Your task to perform on an android device: change keyboard looks Image 0: 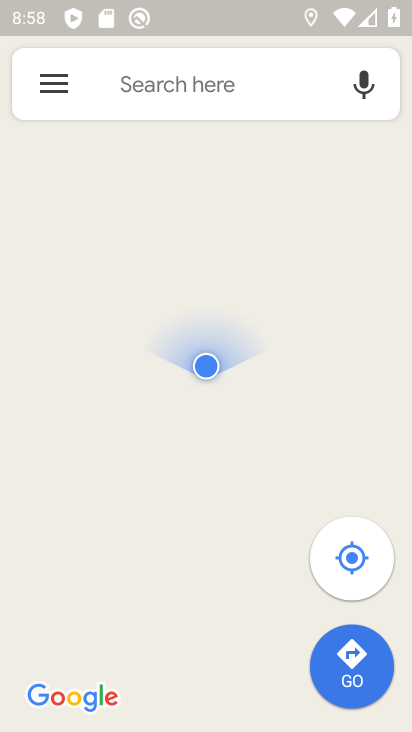
Step 0: press home button
Your task to perform on an android device: change keyboard looks Image 1: 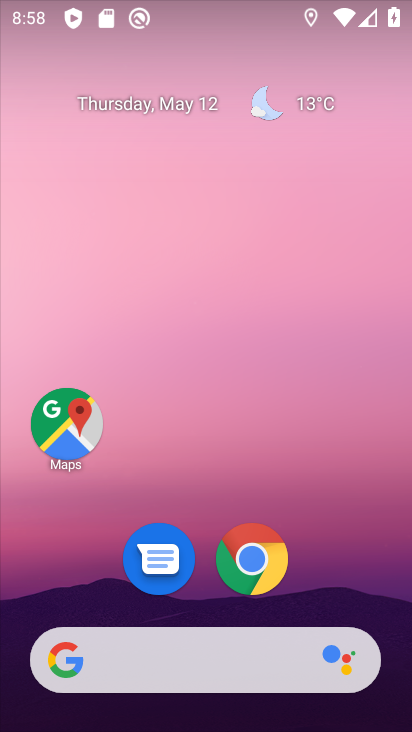
Step 1: drag from (149, 587) to (277, 110)
Your task to perform on an android device: change keyboard looks Image 2: 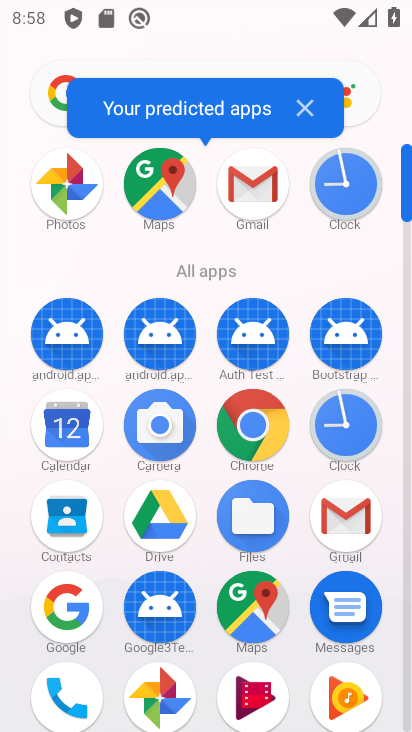
Step 2: drag from (158, 594) to (266, 269)
Your task to perform on an android device: change keyboard looks Image 3: 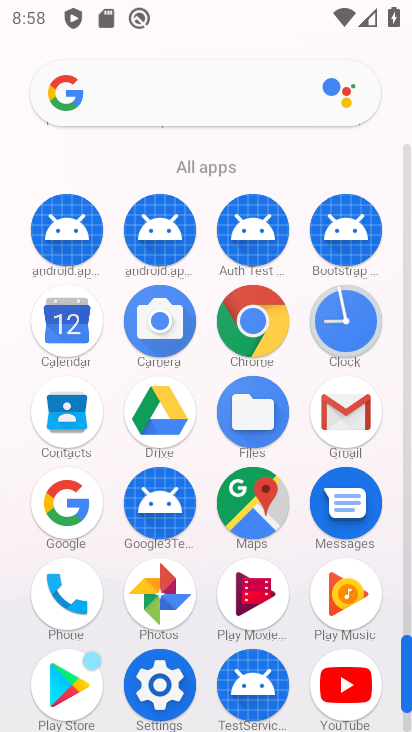
Step 3: click (173, 672)
Your task to perform on an android device: change keyboard looks Image 4: 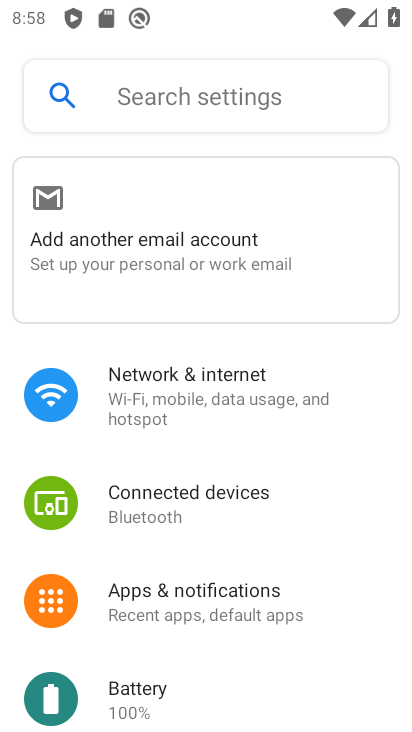
Step 4: drag from (178, 640) to (301, 132)
Your task to perform on an android device: change keyboard looks Image 5: 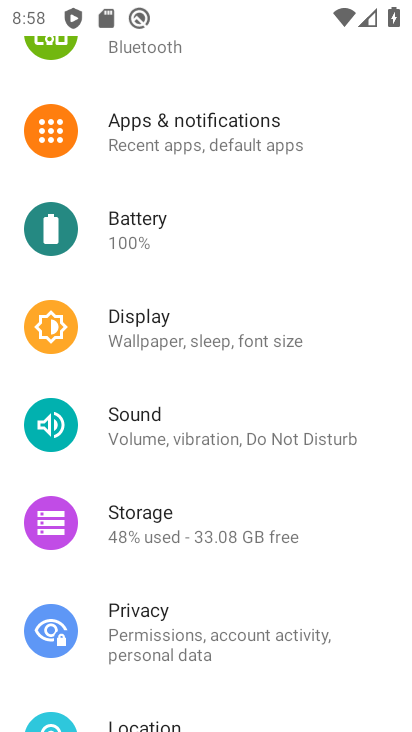
Step 5: drag from (186, 588) to (312, 186)
Your task to perform on an android device: change keyboard looks Image 6: 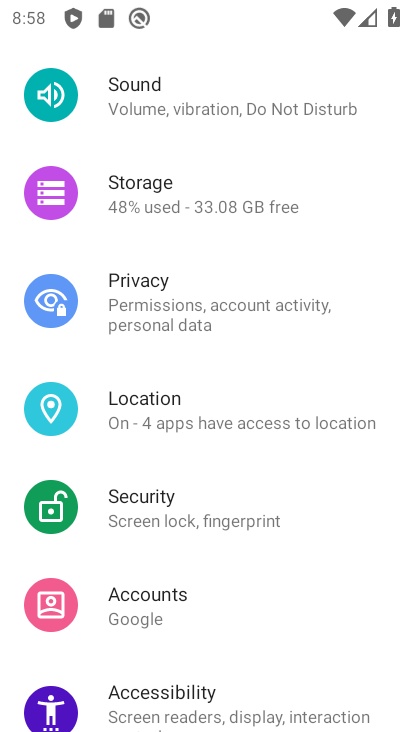
Step 6: drag from (227, 656) to (337, 264)
Your task to perform on an android device: change keyboard looks Image 7: 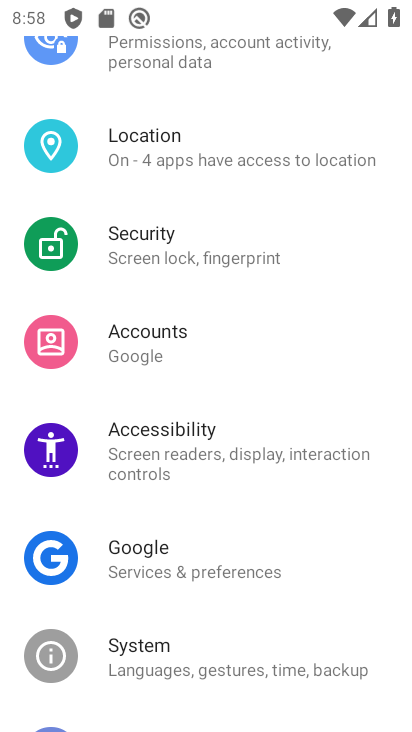
Step 7: click (194, 666)
Your task to perform on an android device: change keyboard looks Image 8: 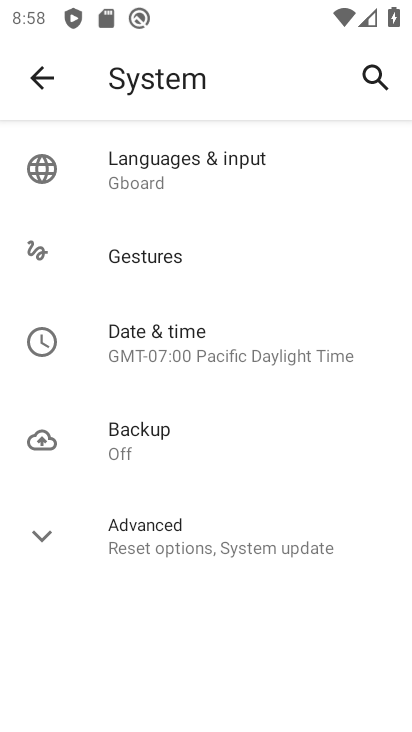
Step 8: click (270, 174)
Your task to perform on an android device: change keyboard looks Image 9: 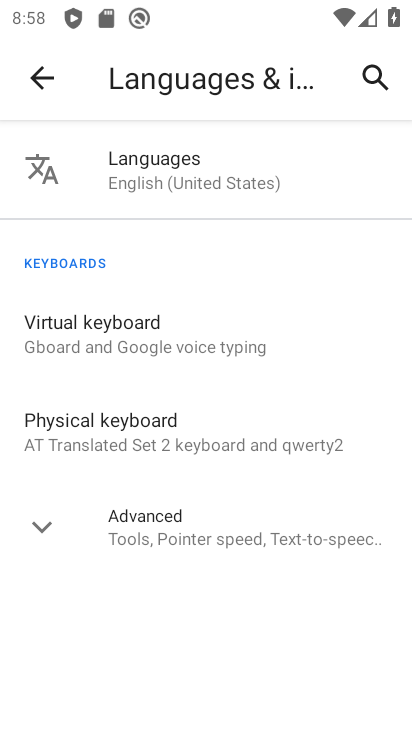
Step 9: click (188, 356)
Your task to perform on an android device: change keyboard looks Image 10: 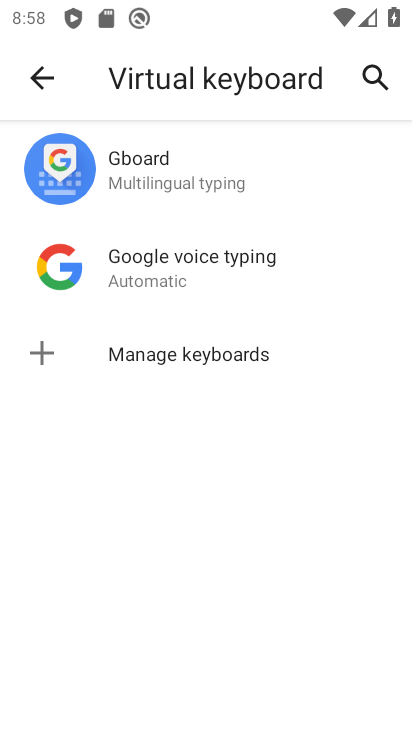
Step 10: click (216, 195)
Your task to perform on an android device: change keyboard looks Image 11: 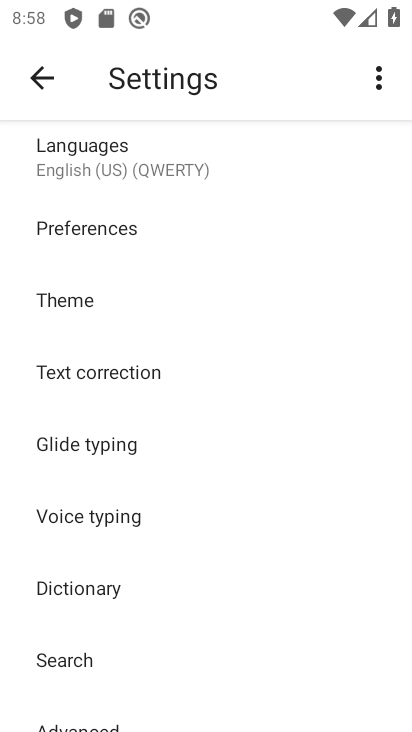
Step 11: drag from (138, 665) to (260, 305)
Your task to perform on an android device: change keyboard looks Image 12: 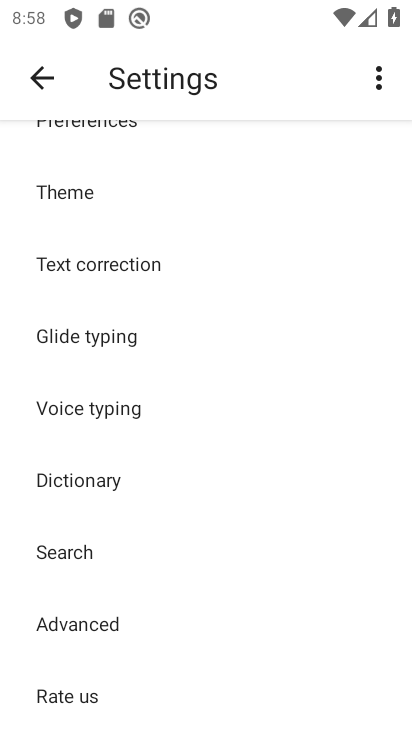
Step 12: drag from (199, 274) to (187, 464)
Your task to perform on an android device: change keyboard looks Image 13: 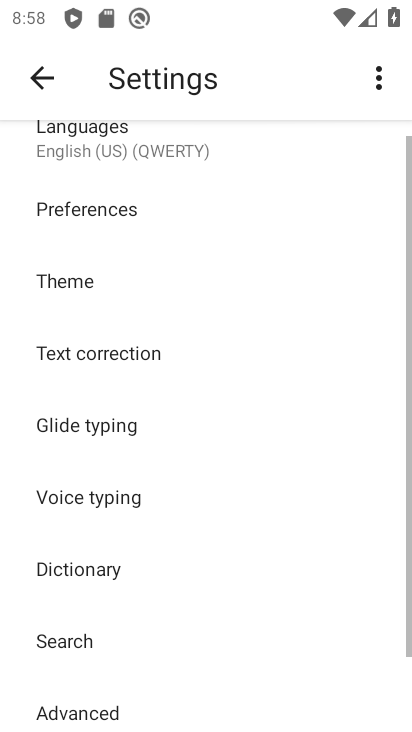
Step 13: click (125, 303)
Your task to perform on an android device: change keyboard looks Image 14: 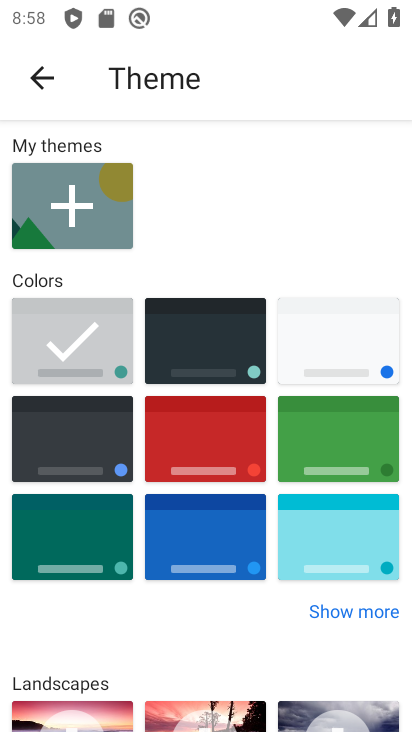
Step 14: click (199, 472)
Your task to perform on an android device: change keyboard looks Image 15: 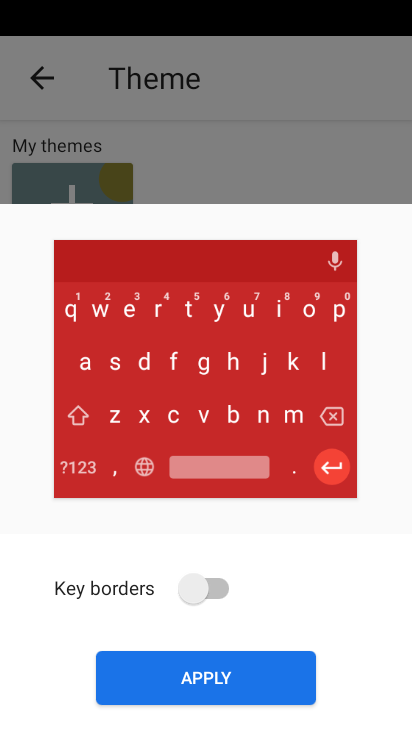
Step 15: click (227, 595)
Your task to perform on an android device: change keyboard looks Image 16: 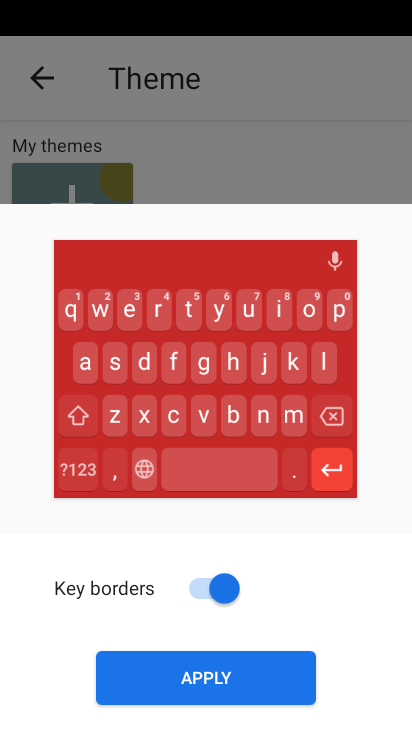
Step 16: click (224, 647)
Your task to perform on an android device: change keyboard looks Image 17: 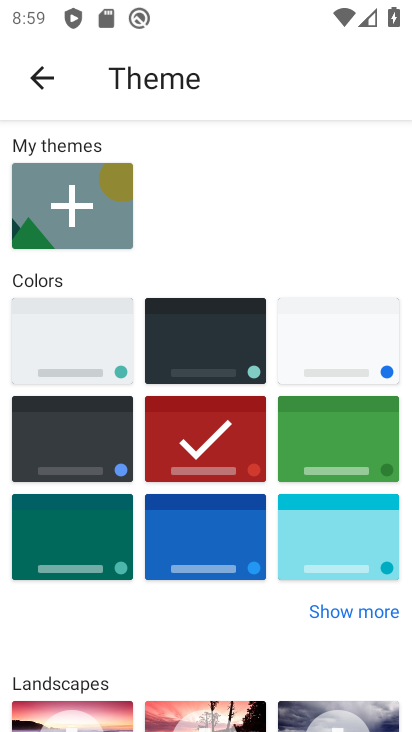
Step 17: drag from (106, 705) to (303, 92)
Your task to perform on an android device: change keyboard looks Image 18: 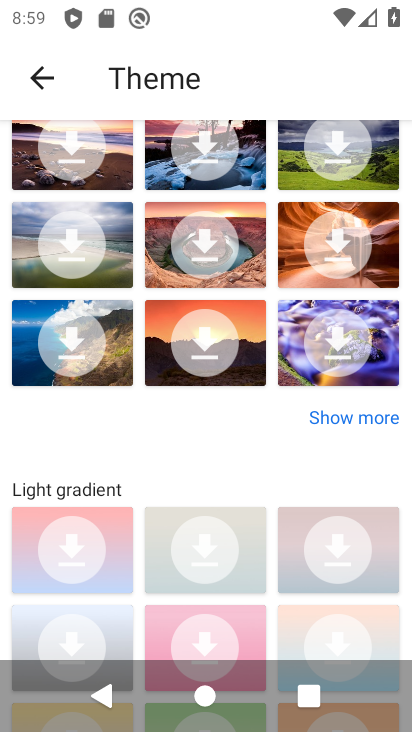
Step 18: click (78, 548)
Your task to perform on an android device: change keyboard looks Image 19: 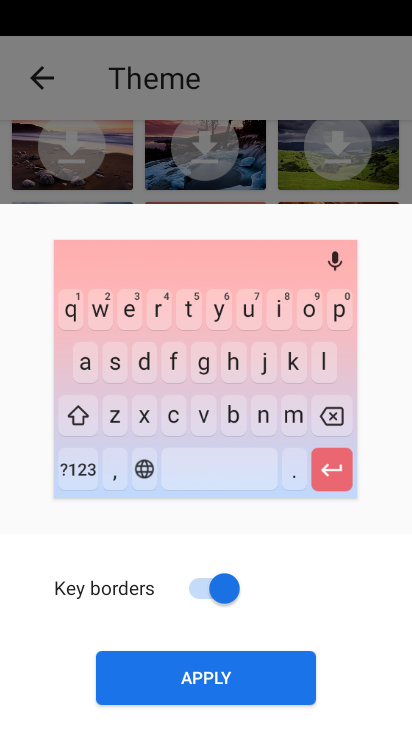
Step 19: click (222, 664)
Your task to perform on an android device: change keyboard looks Image 20: 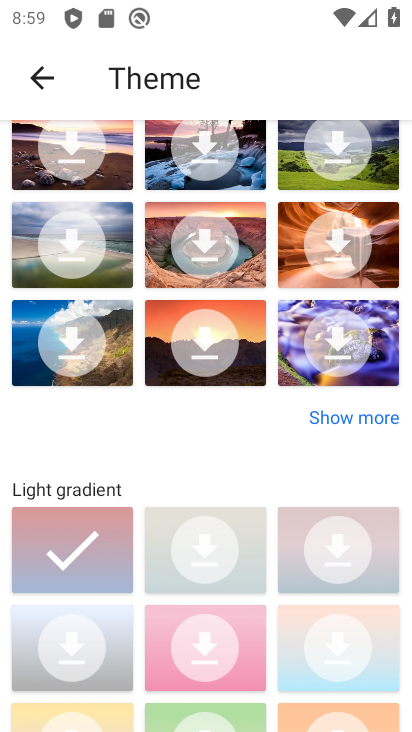
Step 20: click (48, 83)
Your task to perform on an android device: change keyboard looks Image 21: 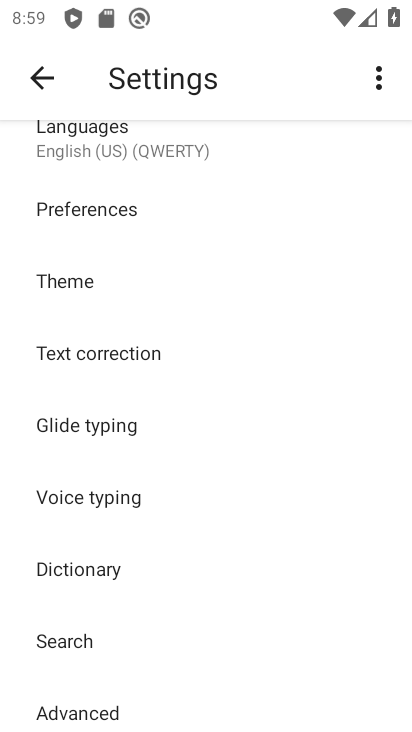
Step 21: click (136, 351)
Your task to perform on an android device: change keyboard looks Image 22: 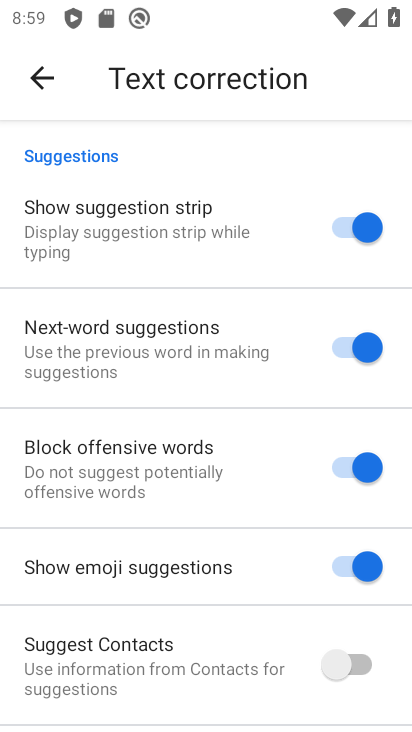
Step 22: click (374, 668)
Your task to perform on an android device: change keyboard looks Image 23: 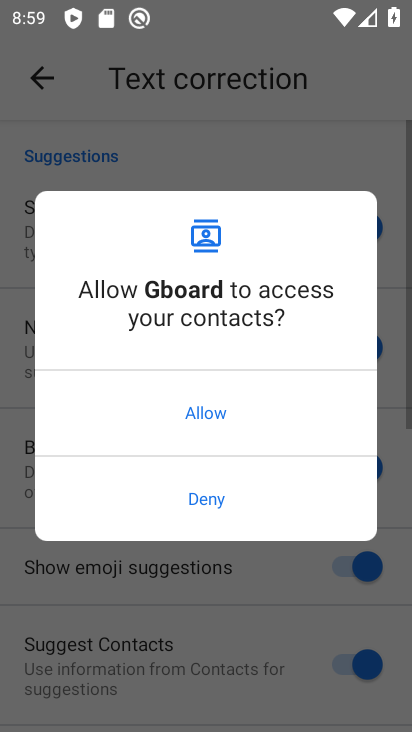
Step 23: click (347, 560)
Your task to perform on an android device: change keyboard looks Image 24: 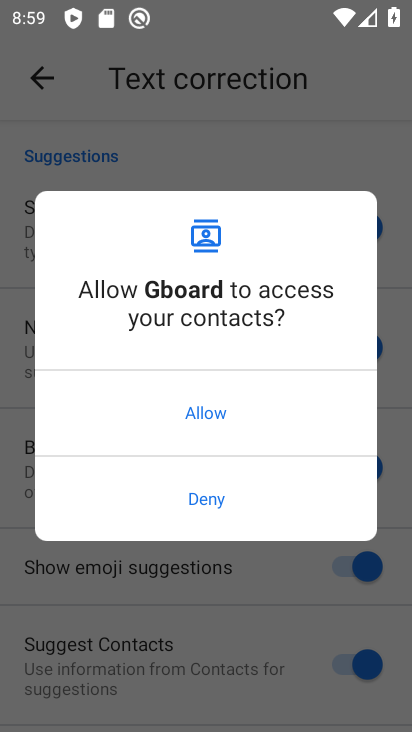
Step 24: click (250, 404)
Your task to perform on an android device: change keyboard looks Image 25: 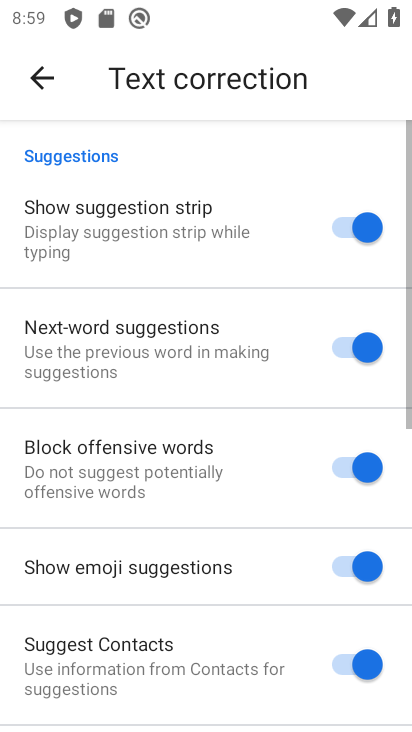
Step 25: click (349, 232)
Your task to perform on an android device: change keyboard looks Image 26: 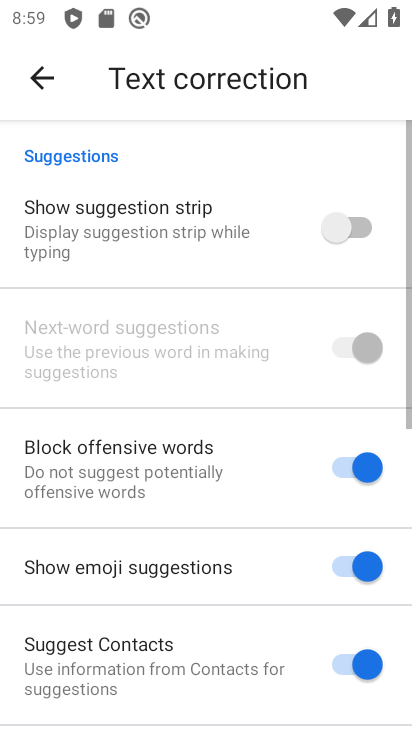
Step 26: click (337, 354)
Your task to perform on an android device: change keyboard looks Image 27: 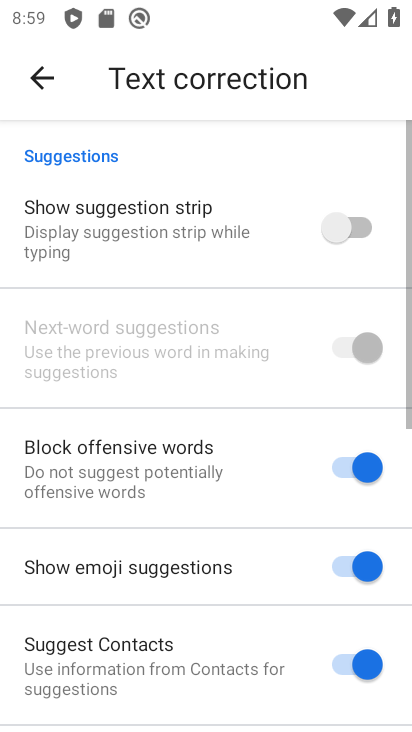
Step 27: click (343, 481)
Your task to perform on an android device: change keyboard looks Image 28: 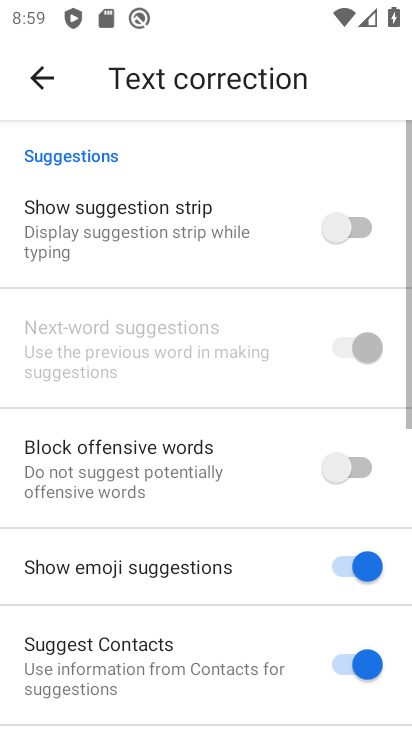
Step 28: click (344, 560)
Your task to perform on an android device: change keyboard looks Image 29: 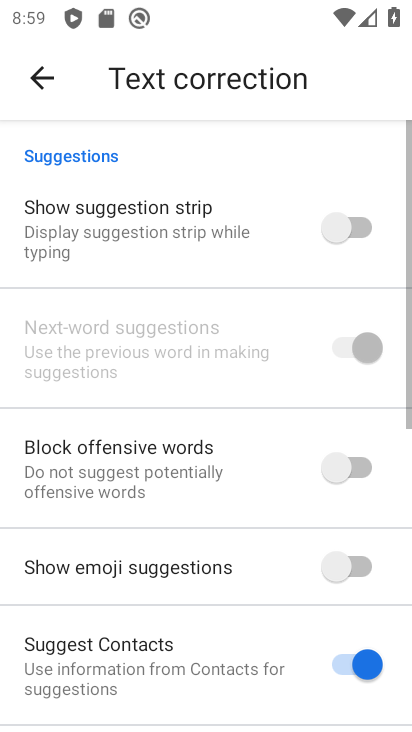
Step 29: drag from (209, 636) to (391, 186)
Your task to perform on an android device: change keyboard looks Image 30: 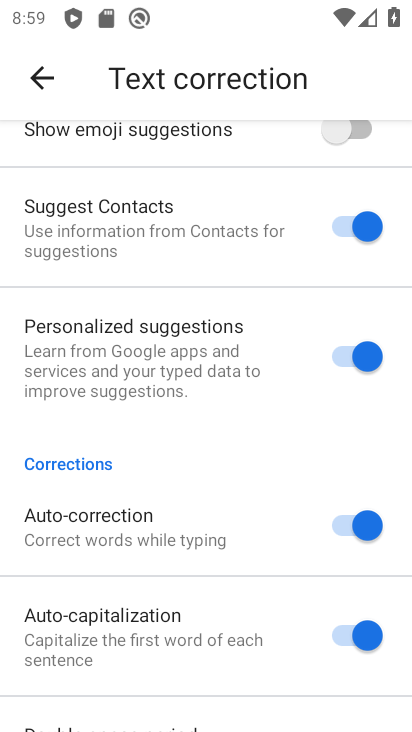
Step 30: click (364, 357)
Your task to perform on an android device: change keyboard looks Image 31: 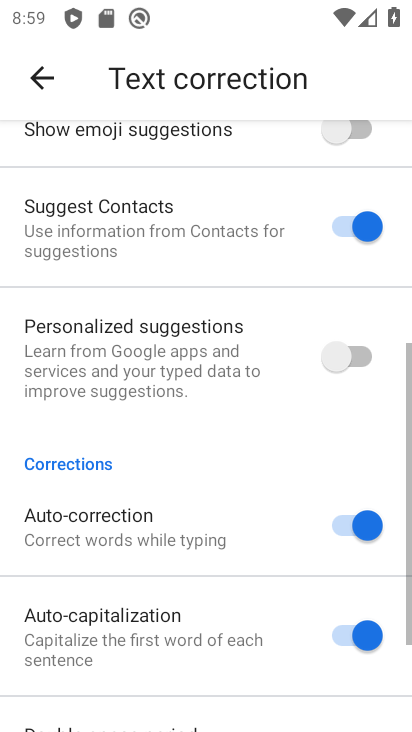
Step 31: click (338, 651)
Your task to perform on an android device: change keyboard looks Image 32: 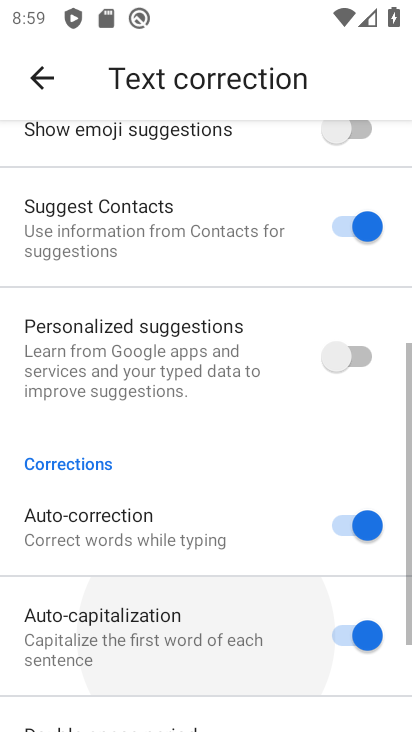
Step 32: click (339, 549)
Your task to perform on an android device: change keyboard looks Image 33: 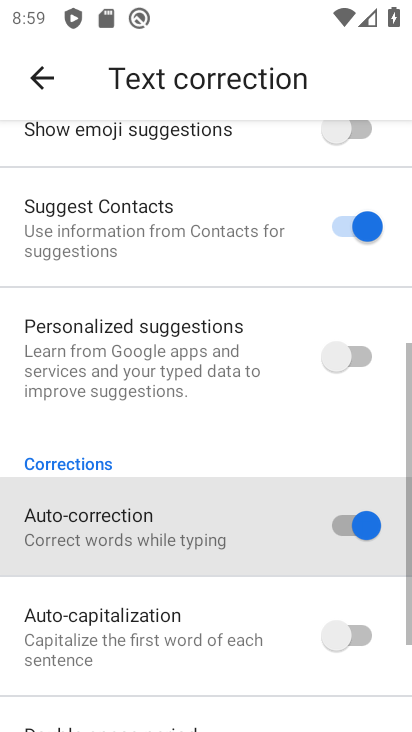
Step 33: drag from (178, 643) to (386, 50)
Your task to perform on an android device: change keyboard looks Image 34: 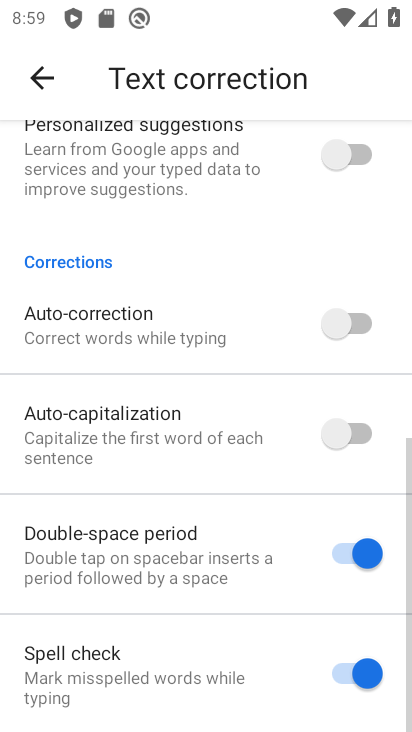
Step 34: click (62, 81)
Your task to perform on an android device: change keyboard looks Image 35: 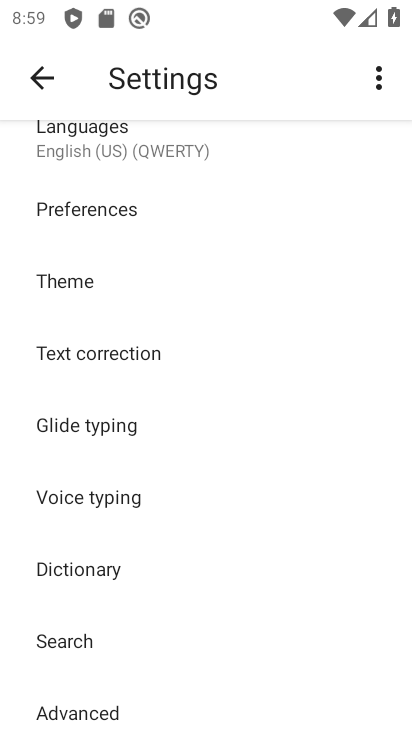
Step 35: click (150, 215)
Your task to perform on an android device: change keyboard looks Image 36: 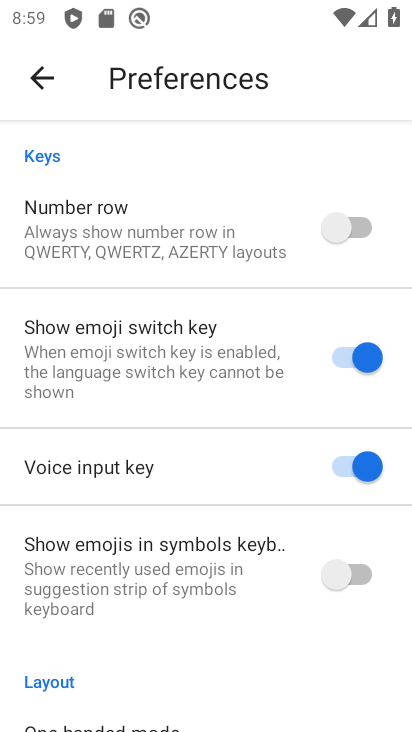
Step 36: click (363, 226)
Your task to perform on an android device: change keyboard looks Image 37: 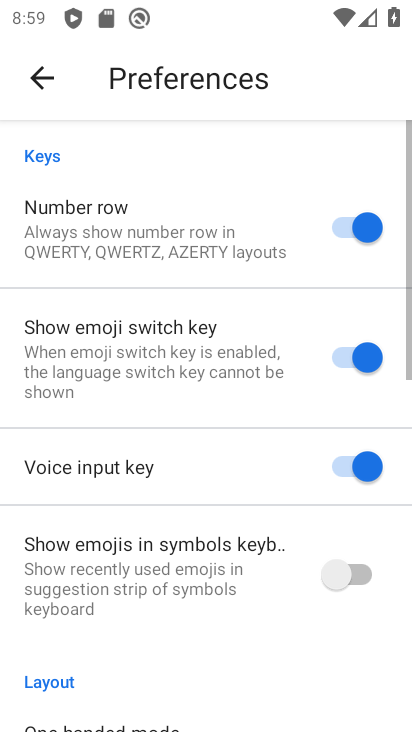
Step 37: click (375, 580)
Your task to perform on an android device: change keyboard looks Image 38: 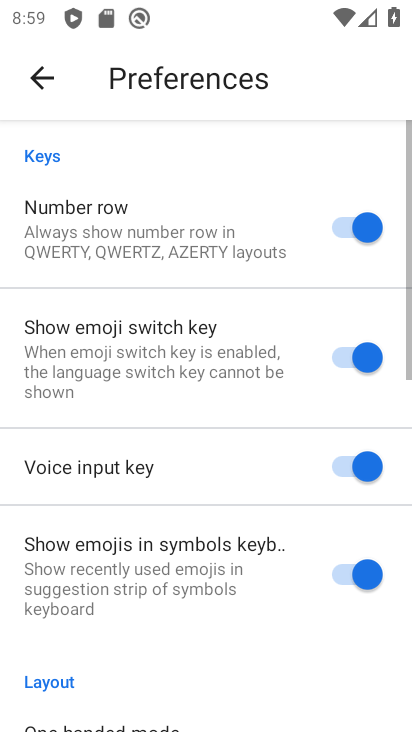
Step 38: drag from (187, 673) to (302, 244)
Your task to perform on an android device: change keyboard looks Image 39: 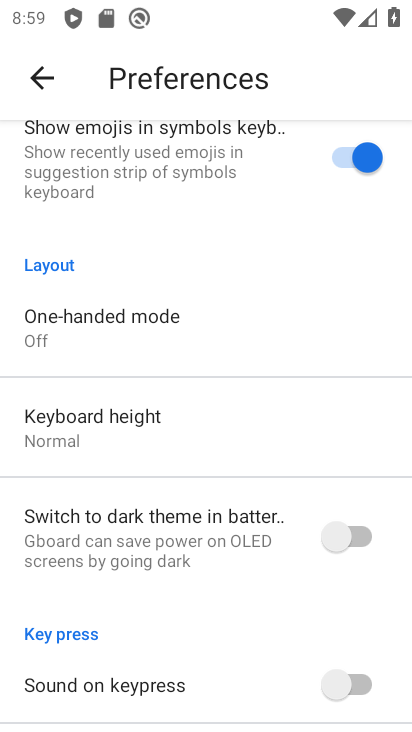
Step 39: click (363, 534)
Your task to perform on an android device: change keyboard looks Image 40: 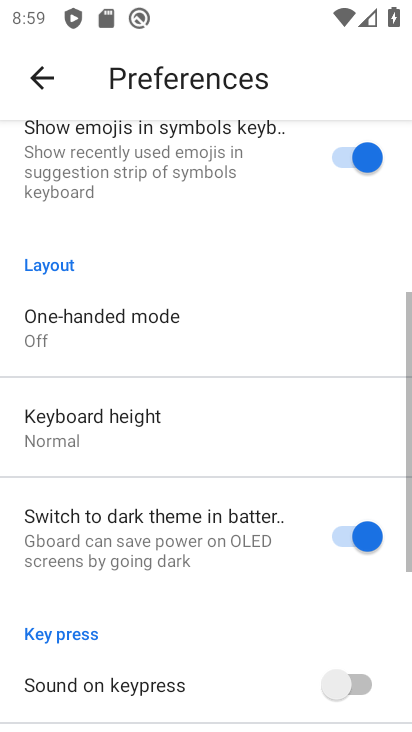
Step 40: click (229, 419)
Your task to perform on an android device: change keyboard looks Image 41: 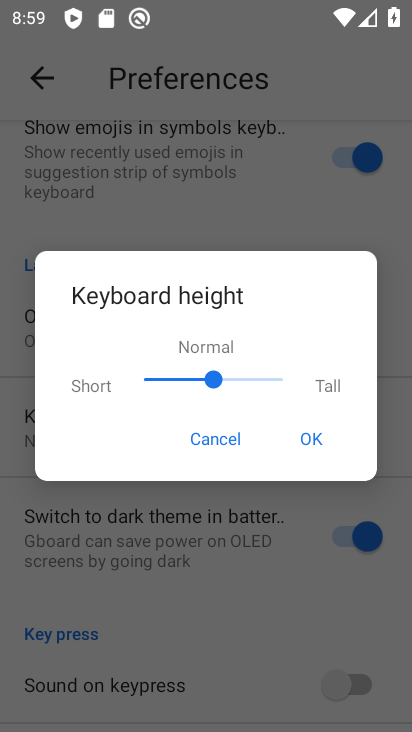
Step 41: drag from (215, 377) to (288, 387)
Your task to perform on an android device: change keyboard looks Image 42: 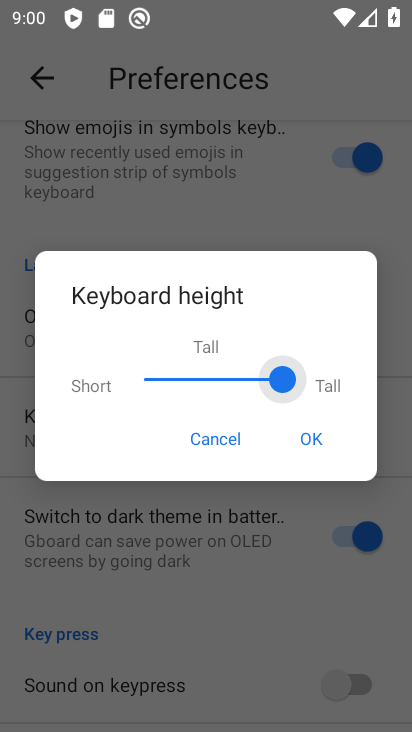
Step 42: click (332, 451)
Your task to perform on an android device: change keyboard looks Image 43: 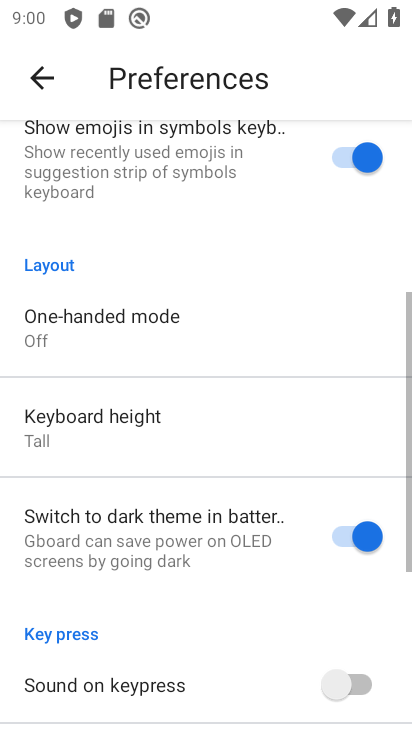
Step 43: click (206, 329)
Your task to perform on an android device: change keyboard looks Image 44: 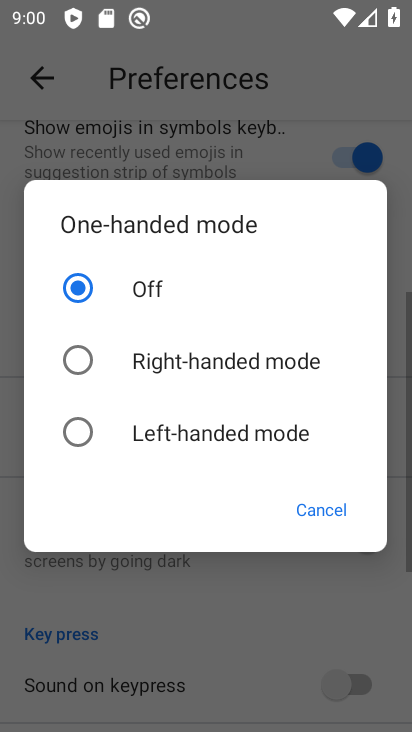
Step 44: click (216, 350)
Your task to perform on an android device: change keyboard looks Image 45: 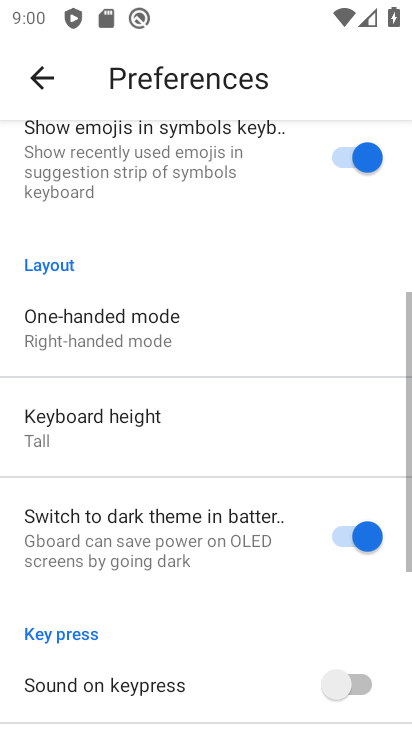
Step 45: drag from (176, 611) to (300, 283)
Your task to perform on an android device: change keyboard looks Image 46: 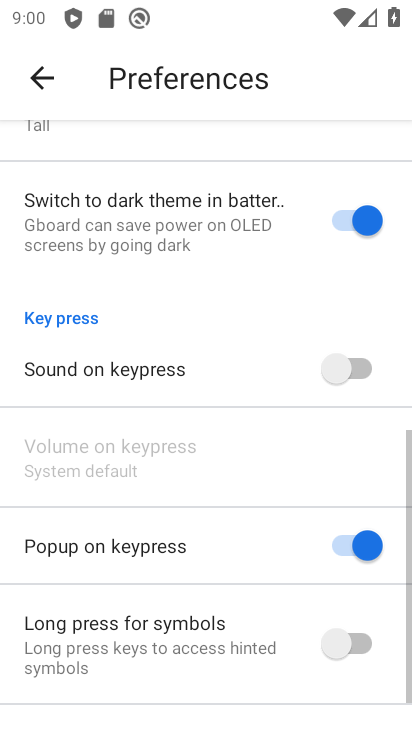
Step 46: drag from (196, 641) to (299, 350)
Your task to perform on an android device: change keyboard looks Image 47: 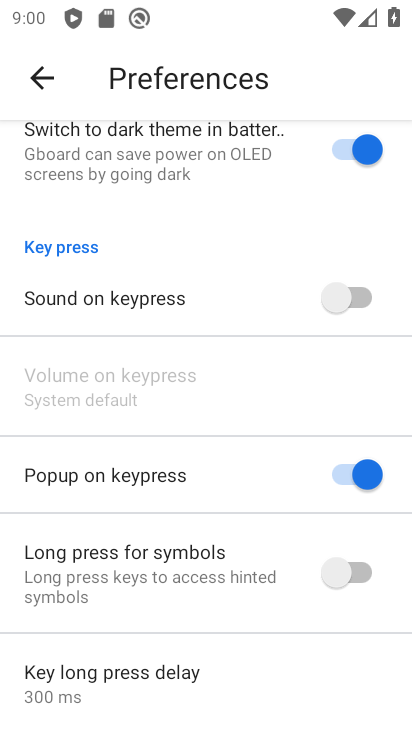
Step 47: click (38, 72)
Your task to perform on an android device: change keyboard looks Image 48: 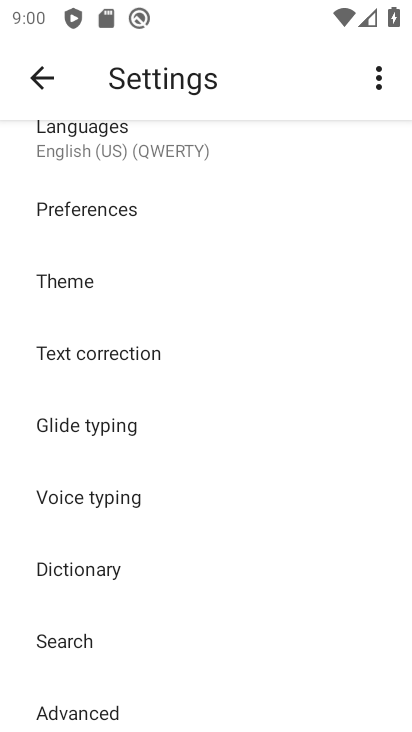
Step 48: click (104, 637)
Your task to perform on an android device: change keyboard looks Image 49: 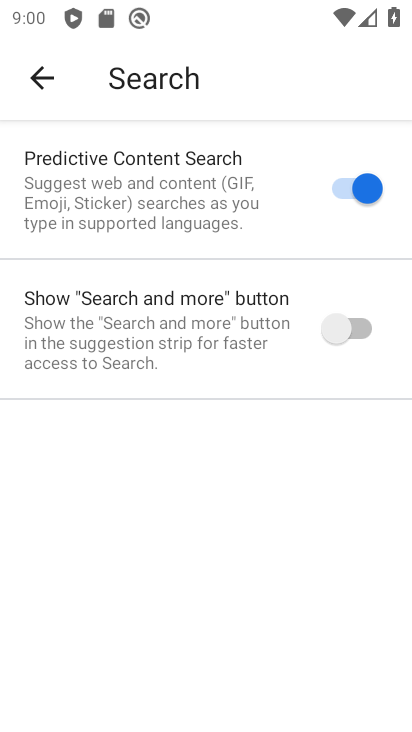
Step 49: click (365, 322)
Your task to perform on an android device: change keyboard looks Image 50: 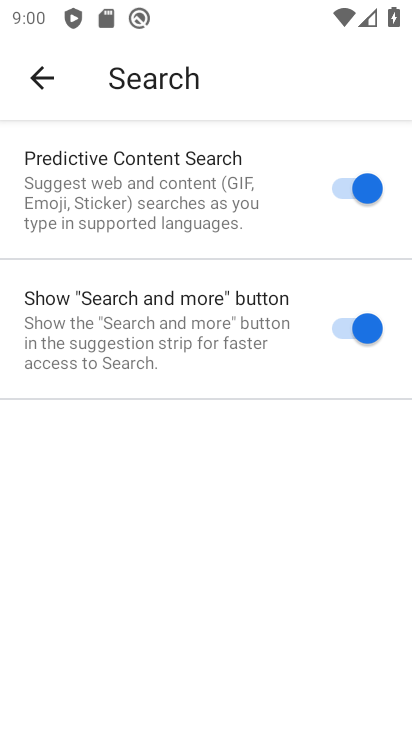
Step 50: task complete